Your task to perform on an android device: change the clock display to analog Image 0: 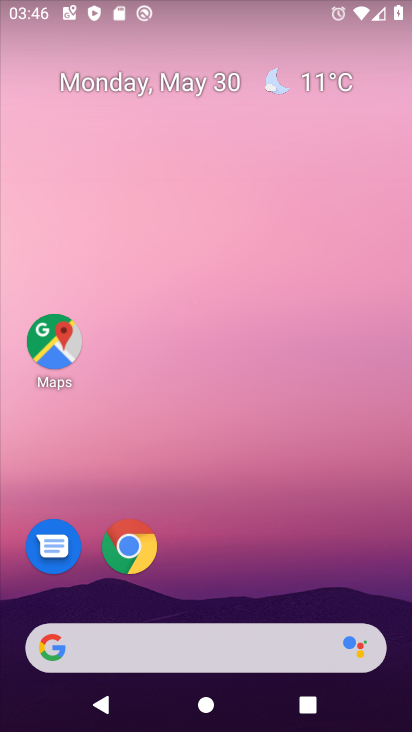
Step 0: drag from (223, 592) to (276, 110)
Your task to perform on an android device: change the clock display to analog Image 1: 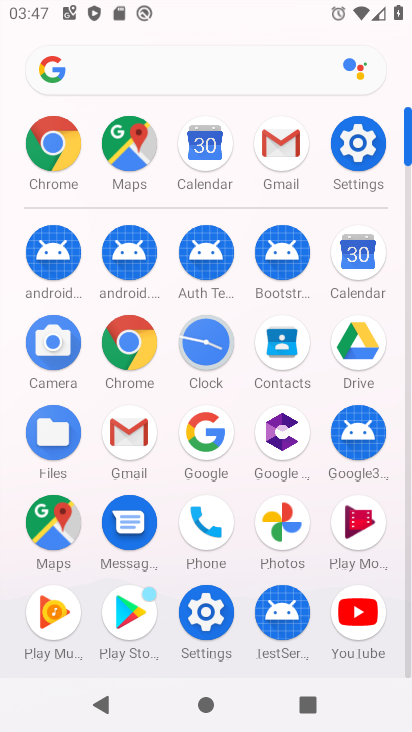
Step 1: click (202, 334)
Your task to perform on an android device: change the clock display to analog Image 2: 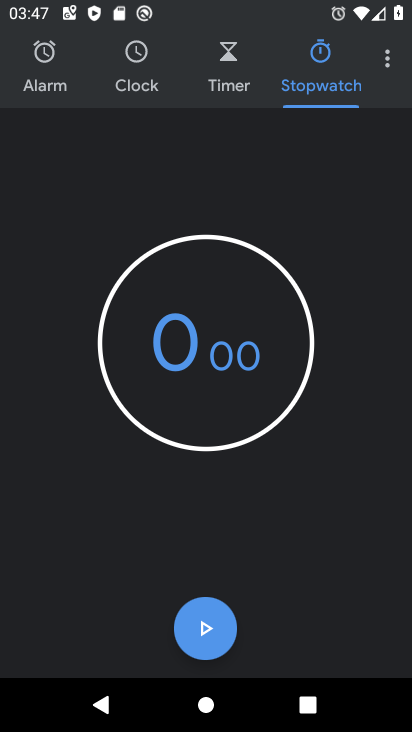
Step 2: click (397, 50)
Your task to perform on an android device: change the clock display to analog Image 3: 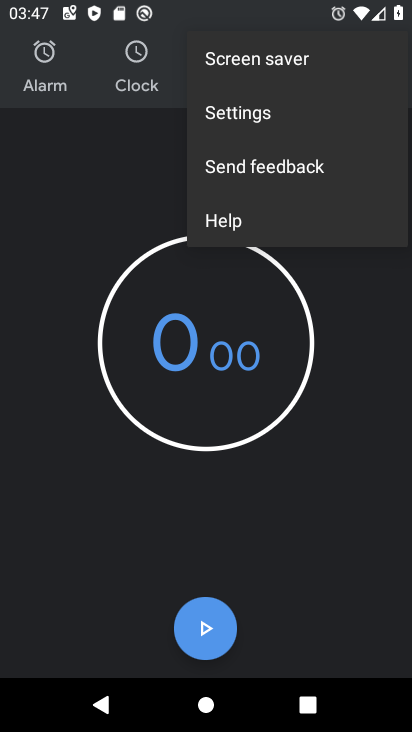
Step 3: click (289, 113)
Your task to perform on an android device: change the clock display to analog Image 4: 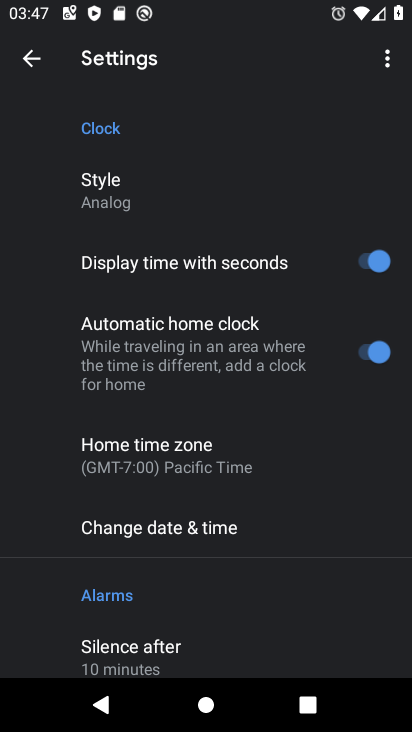
Step 4: click (170, 180)
Your task to perform on an android device: change the clock display to analog Image 5: 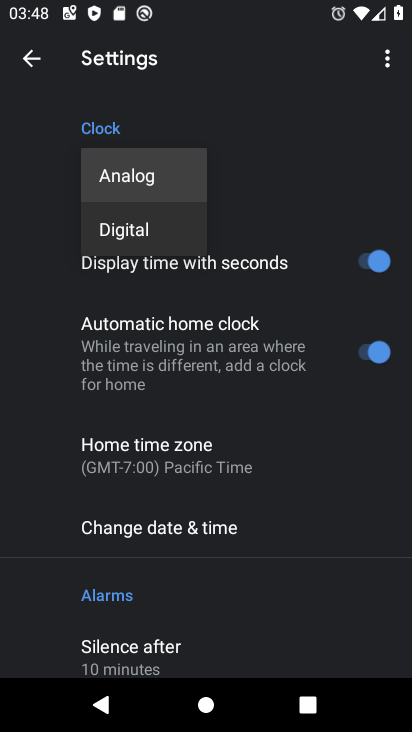
Step 5: click (167, 184)
Your task to perform on an android device: change the clock display to analog Image 6: 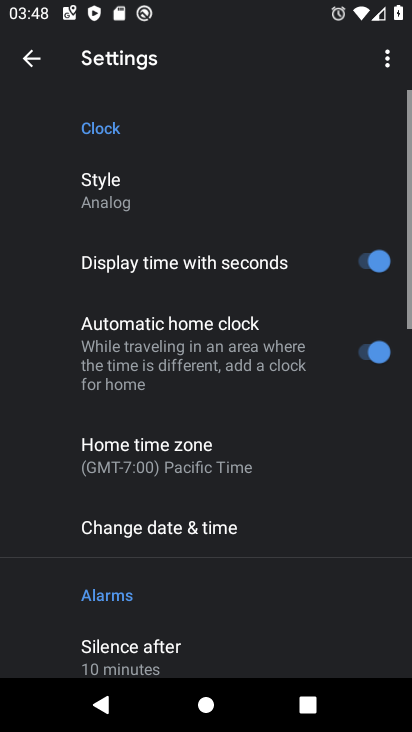
Step 6: task complete